Your task to perform on an android device: Open Google Chrome and open the bookmarks view Image 0: 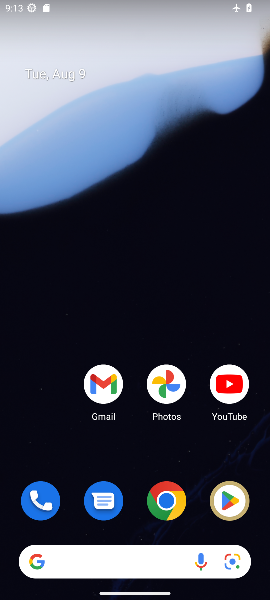
Step 0: click (168, 501)
Your task to perform on an android device: Open Google Chrome and open the bookmarks view Image 1: 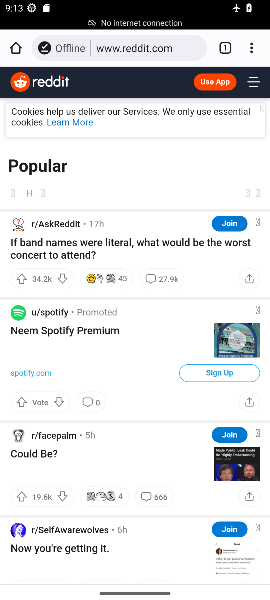
Step 1: click (252, 50)
Your task to perform on an android device: Open Google Chrome and open the bookmarks view Image 2: 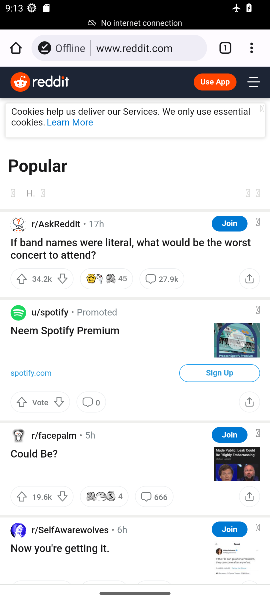
Step 2: click (252, 50)
Your task to perform on an android device: Open Google Chrome and open the bookmarks view Image 3: 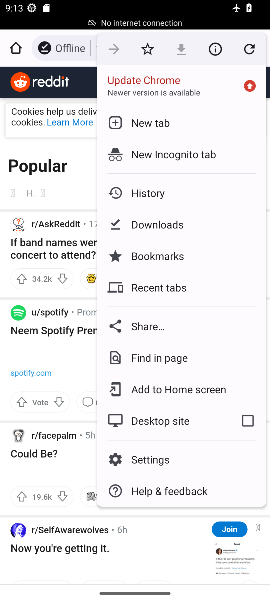
Step 3: click (144, 462)
Your task to perform on an android device: Open Google Chrome and open the bookmarks view Image 4: 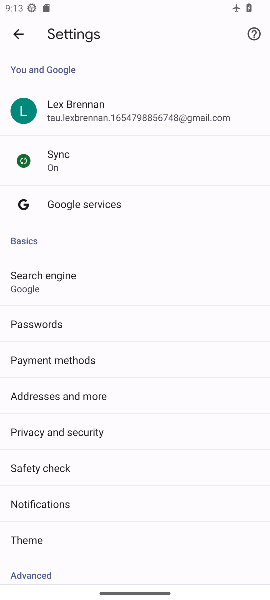
Step 4: click (19, 37)
Your task to perform on an android device: Open Google Chrome and open the bookmarks view Image 5: 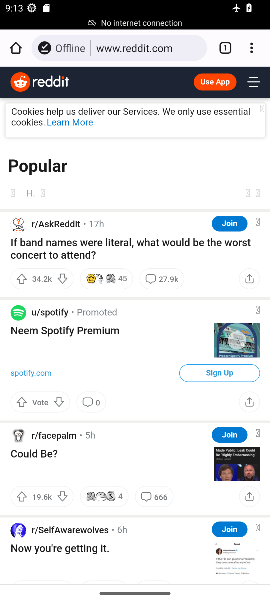
Step 5: click (251, 46)
Your task to perform on an android device: Open Google Chrome and open the bookmarks view Image 6: 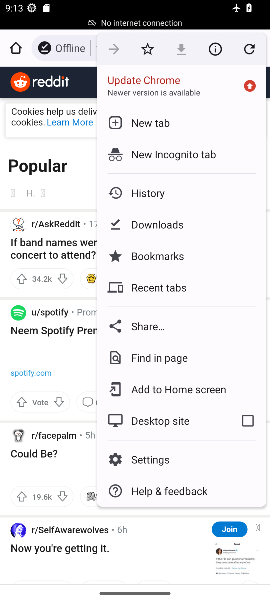
Step 6: click (156, 253)
Your task to perform on an android device: Open Google Chrome and open the bookmarks view Image 7: 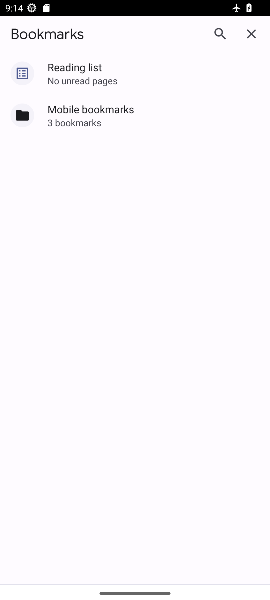
Step 7: task complete